Your task to perform on an android device: Open the calendar app, open the side menu, and click the "Day" option Image 0: 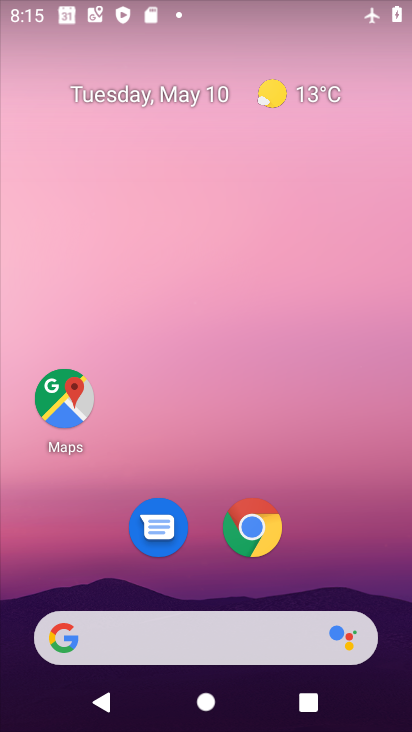
Step 0: drag from (105, 445) to (180, 281)
Your task to perform on an android device: Open the calendar app, open the side menu, and click the "Day" option Image 1: 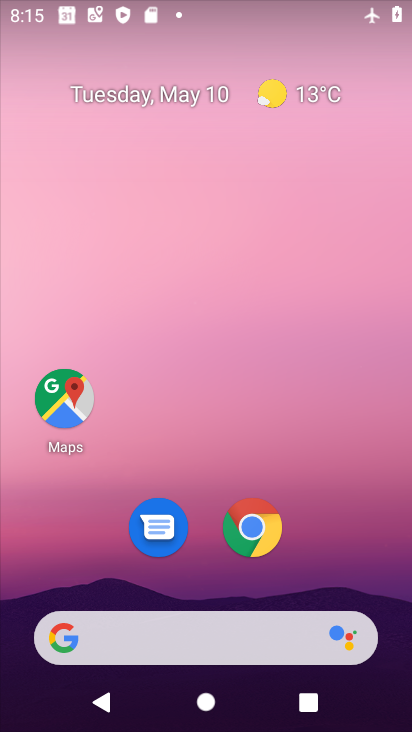
Step 1: drag from (94, 477) to (200, 250)
Your task to perform on an android device: Open the calendar app, open the side menu, and click the "Day" option Image 2: 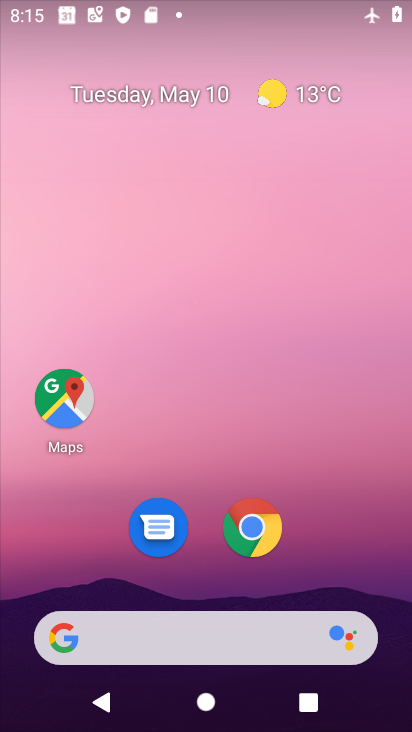
Step 2: drag from (11, 667) to (223, 108)
Your task to perform on an android device: Open the calendar app, open the side menu, and click the "Day" option Image 3: 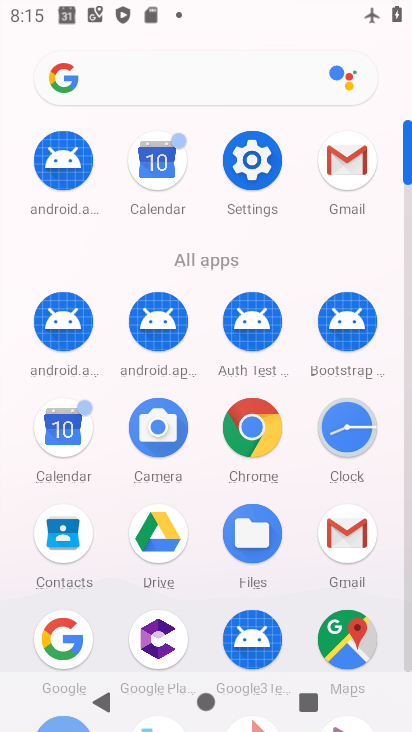
Step 3: click (65, 434)
Your task to perform on an android device: Open the calendar app, open the side menu, and click the "Day" option Image 4: 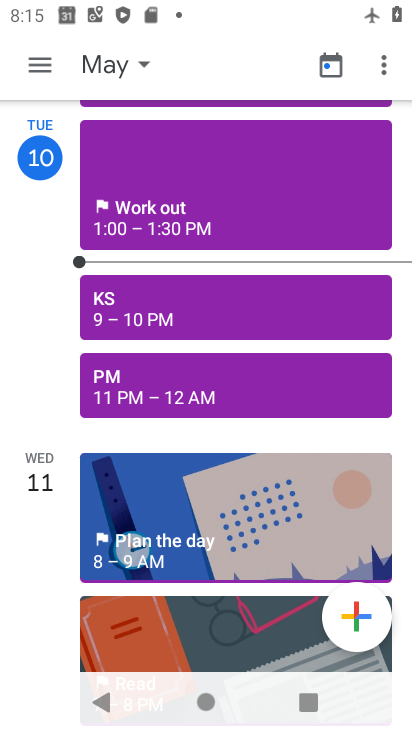
Step 4: click (35, 65)
Your task to perform on an android device: Open the calendar app, open the side menu, and click the "Day" option Image 5: 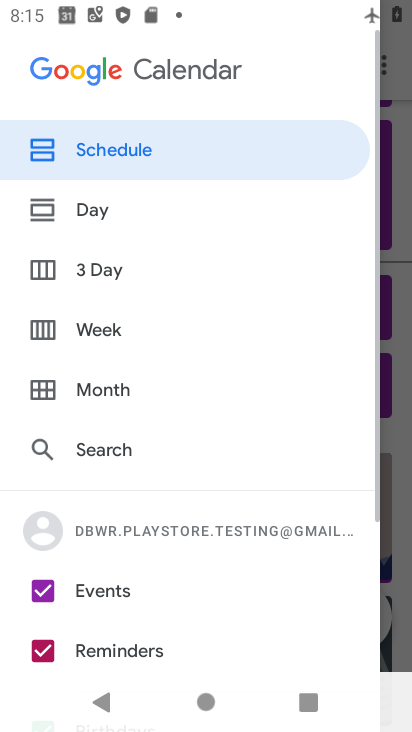
Step 5: click (98, 205)
Your task to perform on an android device: Open the calendar app, open the side menu, and click the "Day" option Image 6: 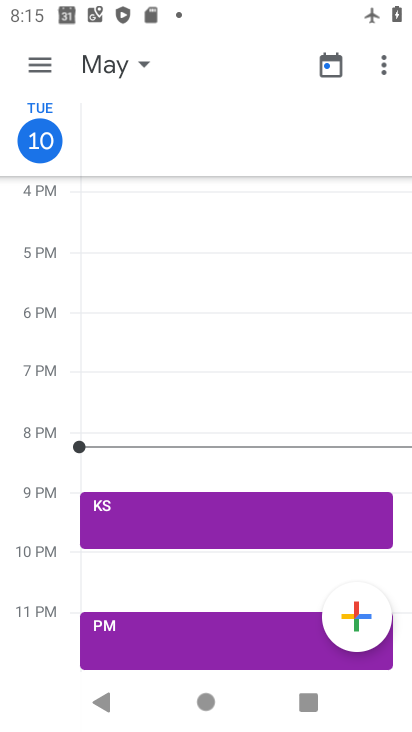
Step 6: task complete